Your task to perform on an android device: empty trash in google photos Image 0: 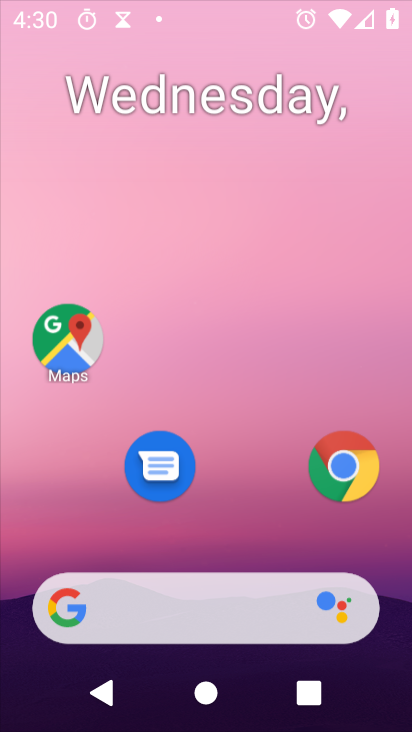
Step 0: drag from (293, 511) to (145, 70)
Your task to perform on an android device: empty trash in google photos Image 1: 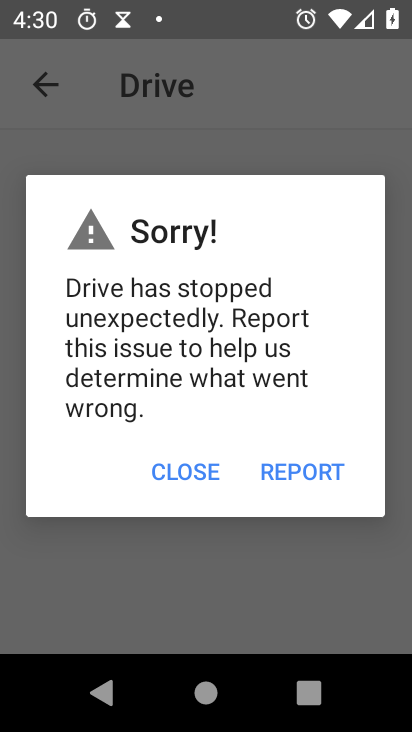
Step 1: press home button
Your task to perform on an android device: empty trash in google photos Image 2: 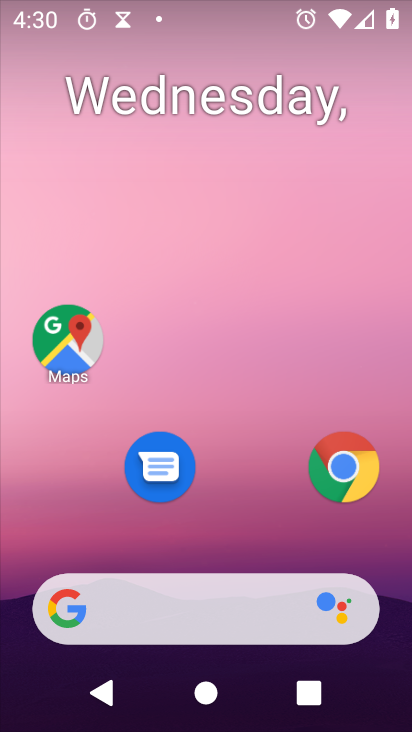
Step 2: drag from (270, 550) to (267, 38)
Your task to perform on an android device: empty trash in google photos Image 3: 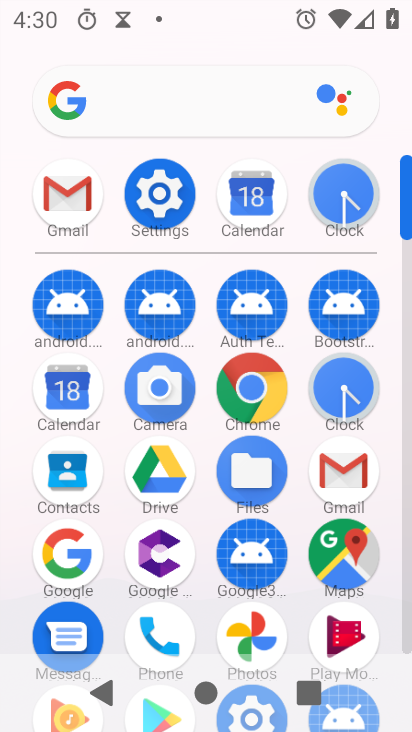
Step 3: click (243, 624)
Your task to perform on an android device: empty trash in google photos Image 4: 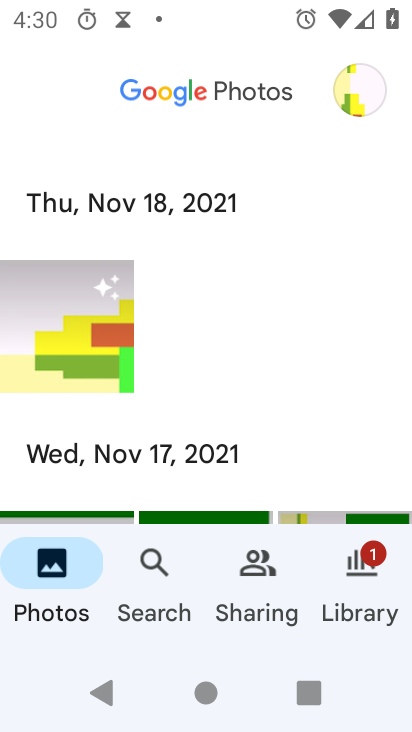
Step 4: click (356, 103)
Your task to perform on an android device: empty trash in google photos Image 5: 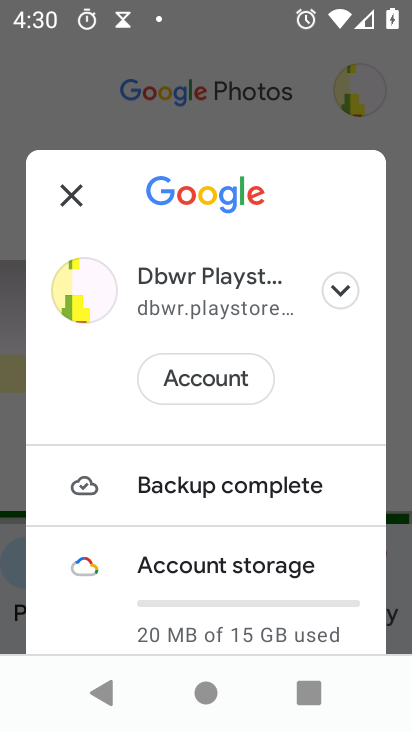
Step 5: drag from (318, 640) to (265, 259)
Your task to perform on an android device: empty trash in google photos Image 6: 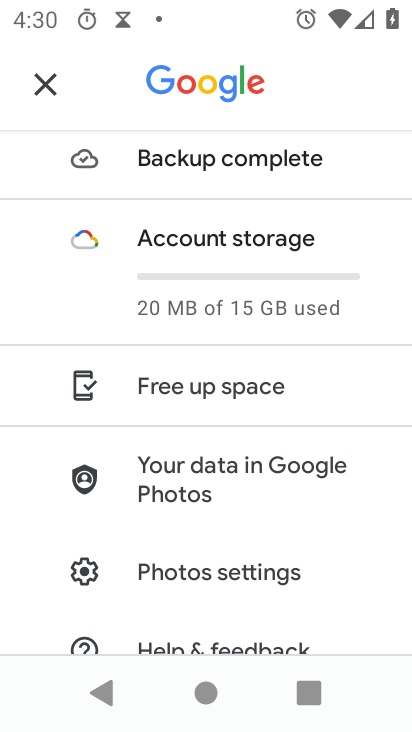
Step 6: drag from (284, 586) to (218, 262)
Your task to perform on an android device: empty trash in google photos Image 7: 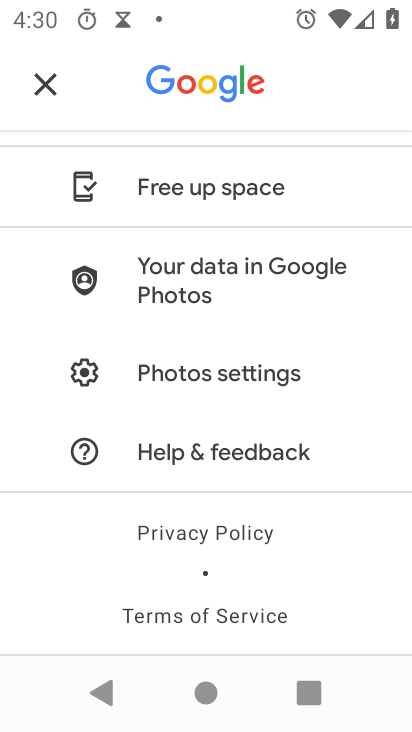
Step 7: click (207, 189)
Your task to perform on an android device: empty trash in google photos Image 8: 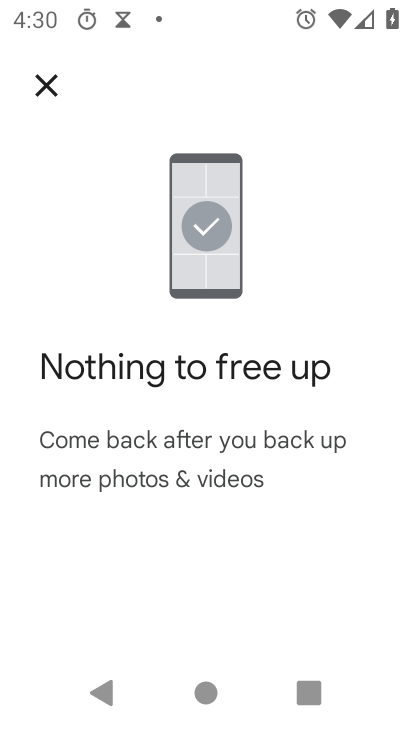
Step 8: task complete